Your task to perform on an android device: open app "Truecaller" (install if not already installed) Image 0: 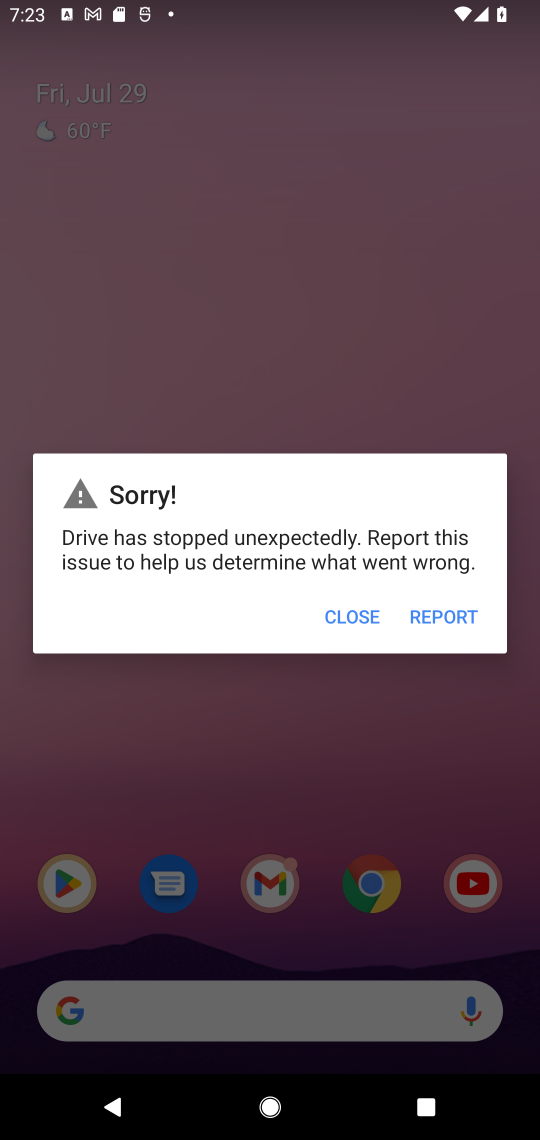
Step 0: click (327, 615)
Your task to perform on an android device: open app "Truecaller" (install if not already installed) Image 1: 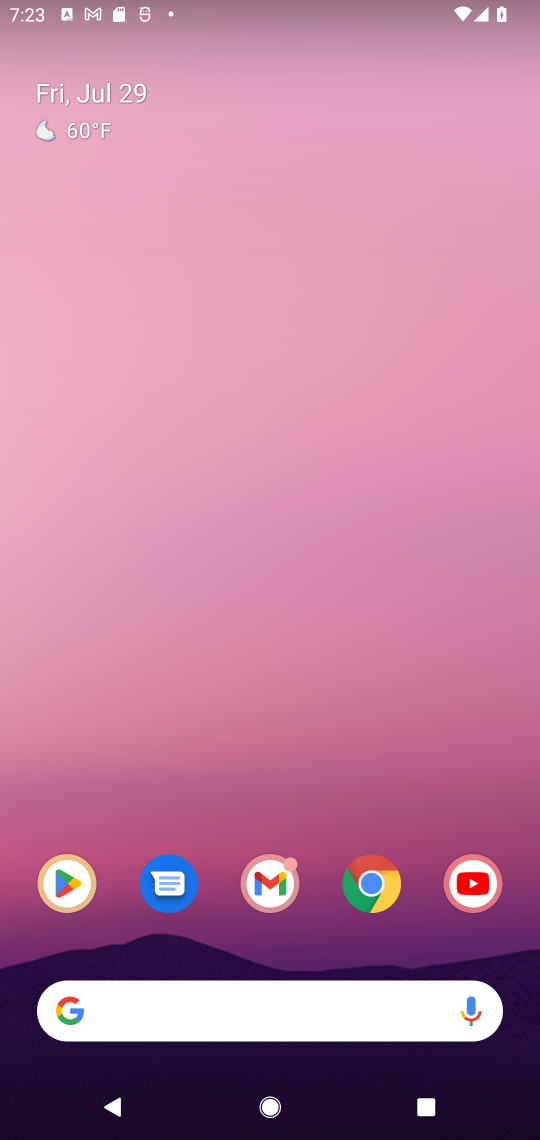
Step 1: drag from (230, 750) to (394, 41)
Your task to perform on an android device: open app "Truecaller" (install if not already installed) Image 2: 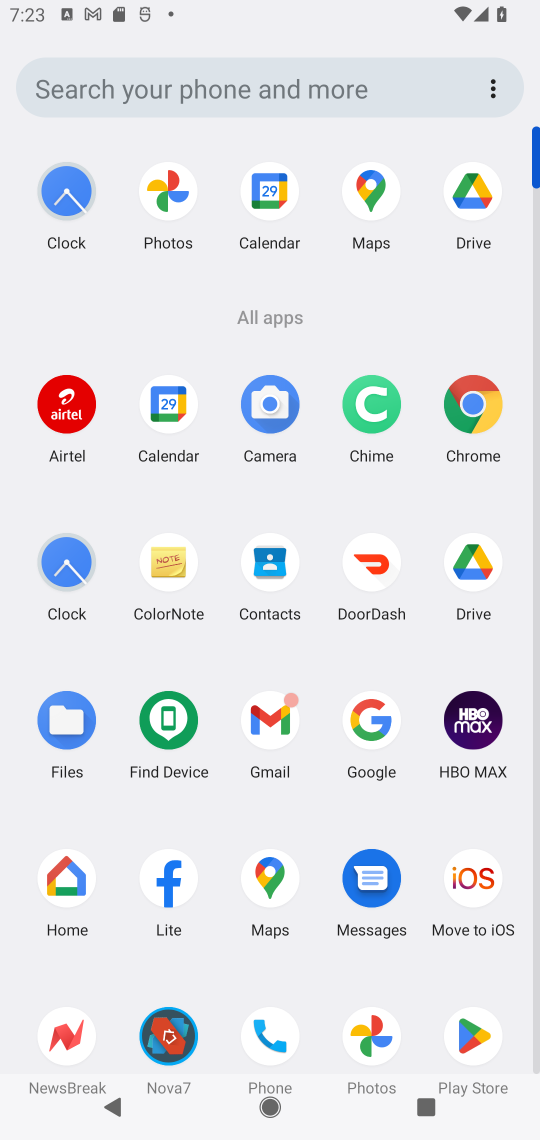
Step 2: click (476, 1037)
Your task to perform on an android device: open app "Truecaller" (install if not already installed) Image 3: 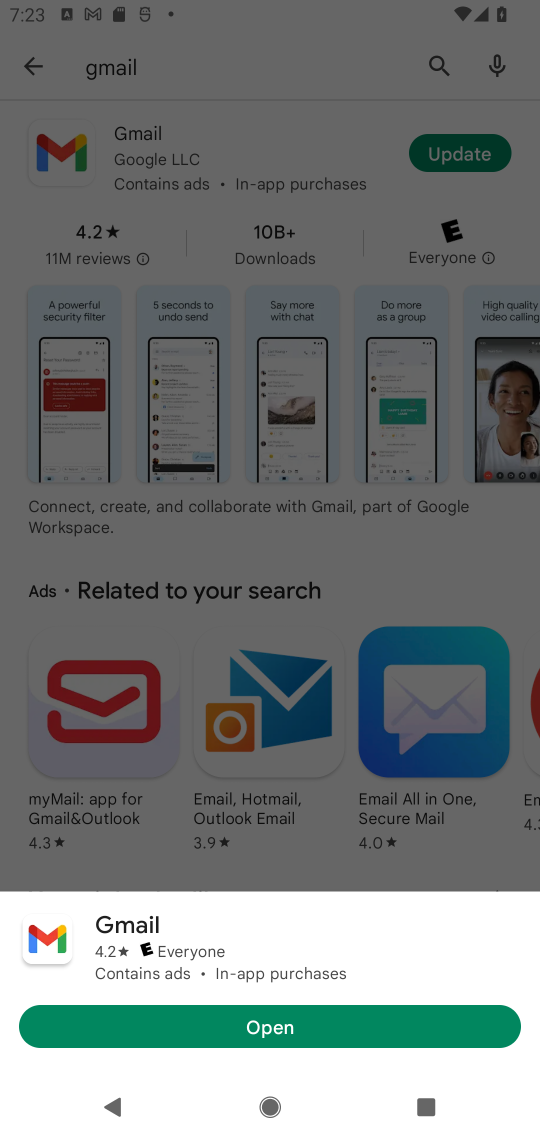
Step 3: click (214, 342)
Your task to perform on an android device: open app "Truecaller" (install if not already installed) Image 4: 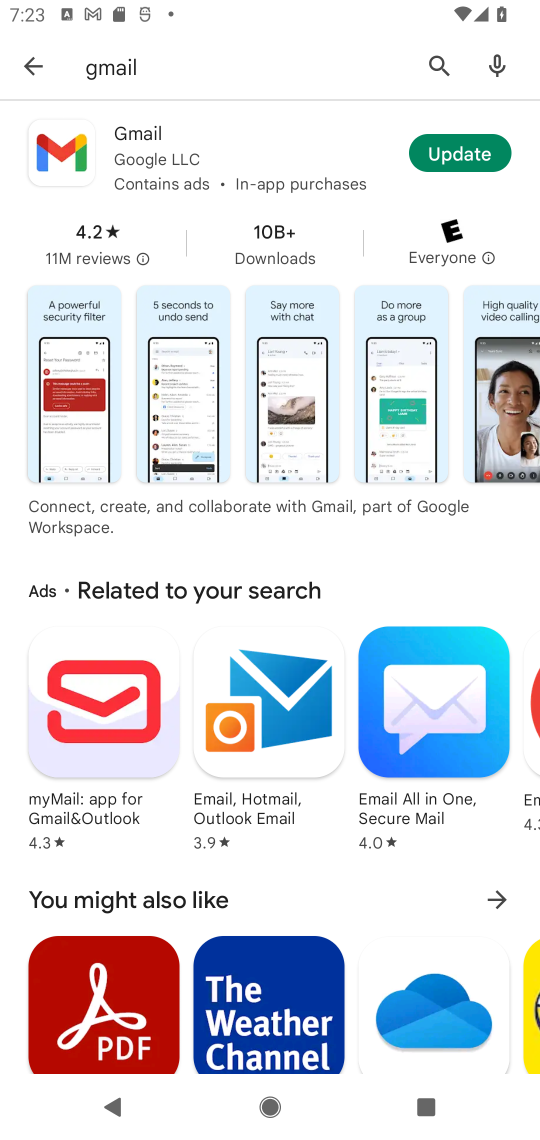
Step 4: click (438, 43)
Your task to perform on an android device: open app "Truecaller" (install if not already installed) Image 5: 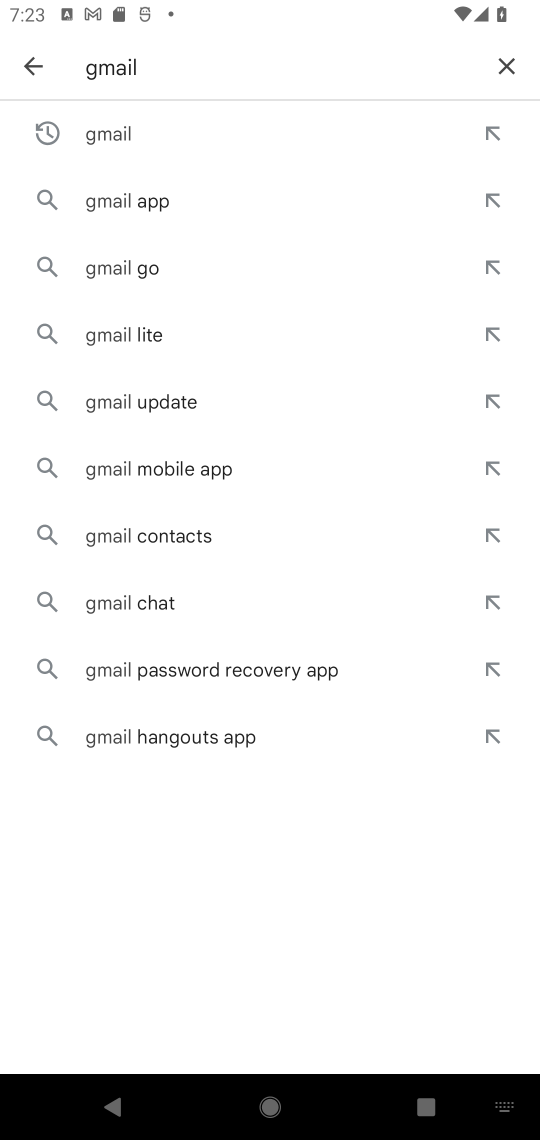
Step 5: click (507, 69)
Your task to perform on an android device: open app "Truecaller" (install if not already installed) Image 6: 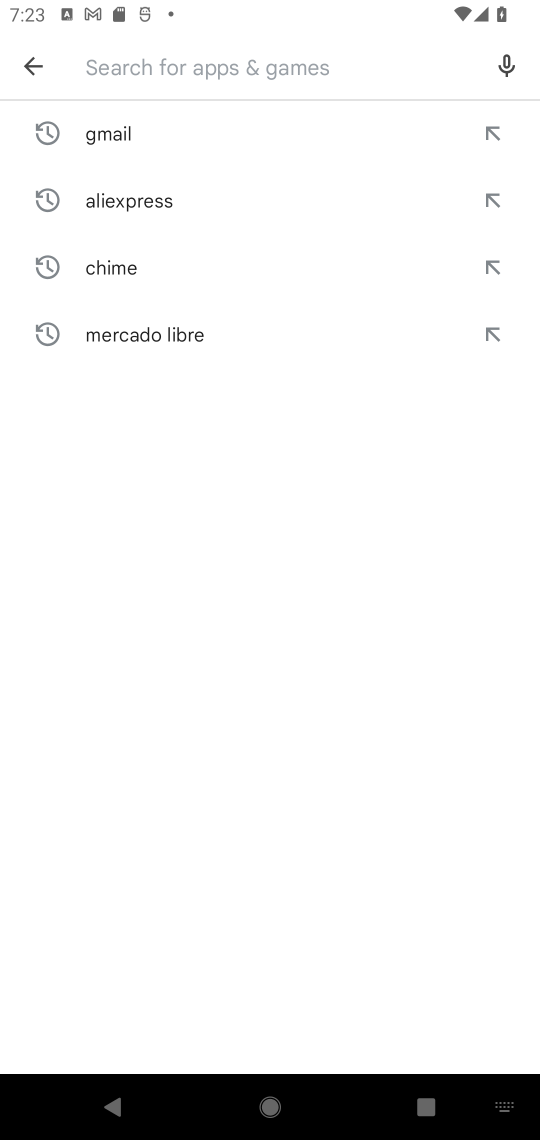
Step 6: click (185, 77)
Your task to perform on an android device: open app "Truecaller" (install if not already installed) Image 7: 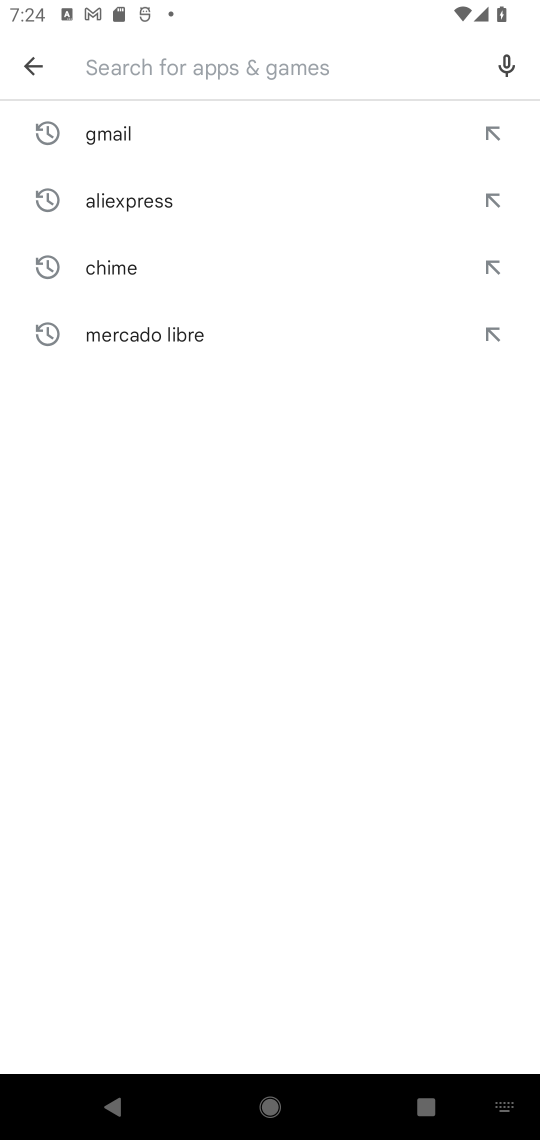
Step 7: type "truecaller"
Your task to perform on an android device: open app "Truecaller" (install if not already installed) Image 8: 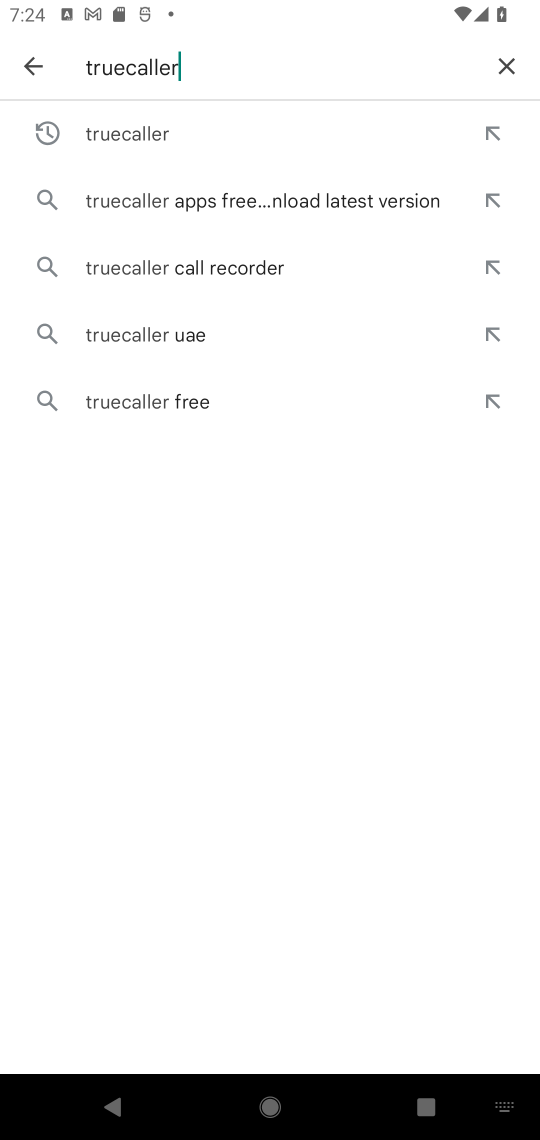
Step 8: click (171, 150)
Your task to perform on an android device: open app "Truecaller" (install if not already installed) Image 9: 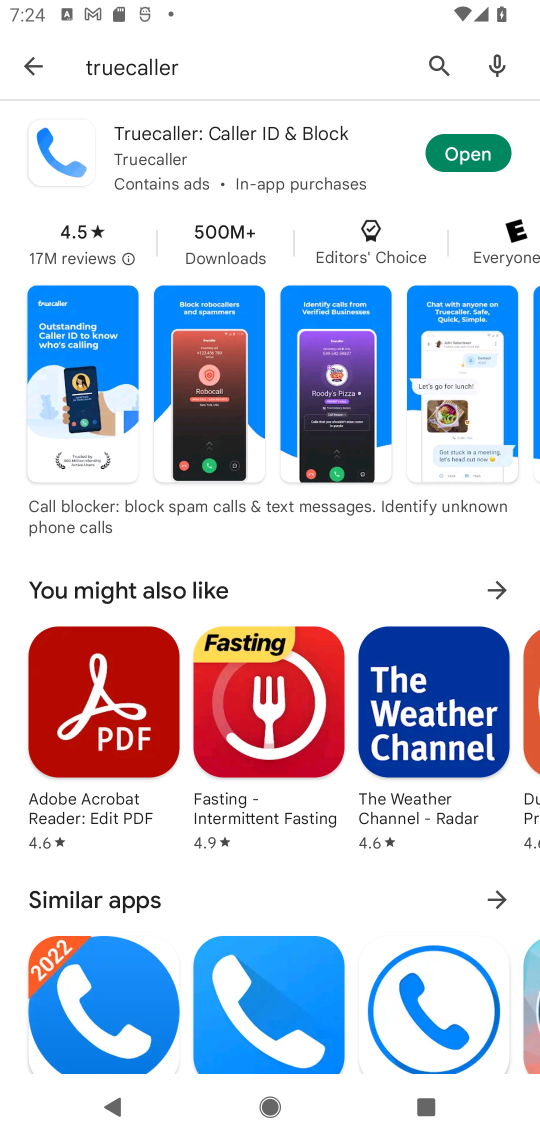
Step 9: click (465, 159)
Your task to perform on an android device: open app "Truecaller" (install if not already installed) Image 10: 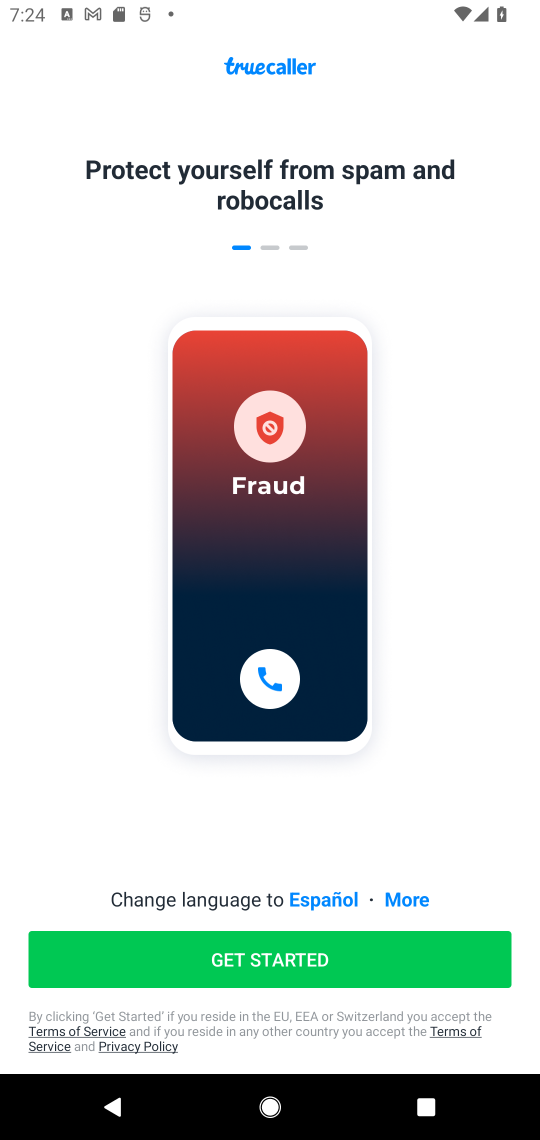
Step 10: task complete